Your task to perform on an android device: Open Amazon Image 0: 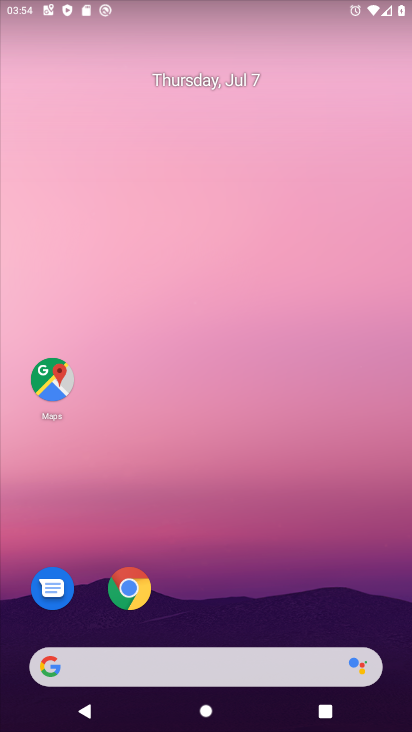
Step 0: click (123, 595)
Your task to perform on an android device: Open Amazon Image 1: 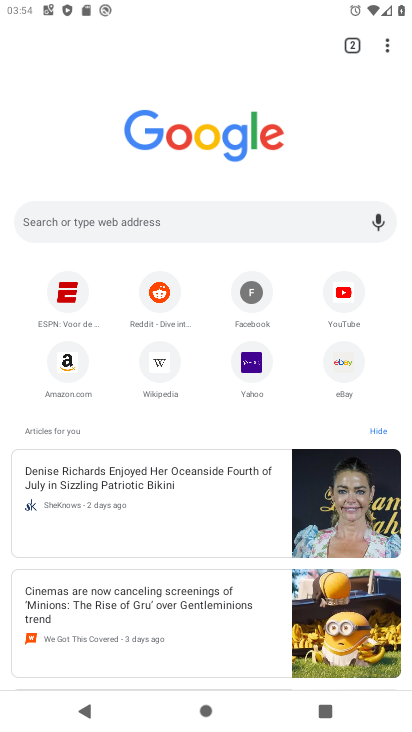
Step 1: click (80, 362)
Your task to perform on an android device: Open Amazon Image 2: 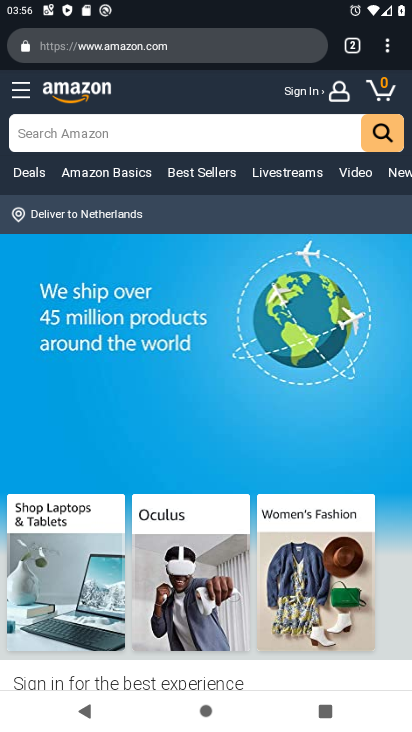
Step 2: task complete